Your task to perform on an android device: View the shopping cart on newegg. Search for "beats solo 3" on newegg, select the first entry, add it to the cart, then select checkout. Image 0: 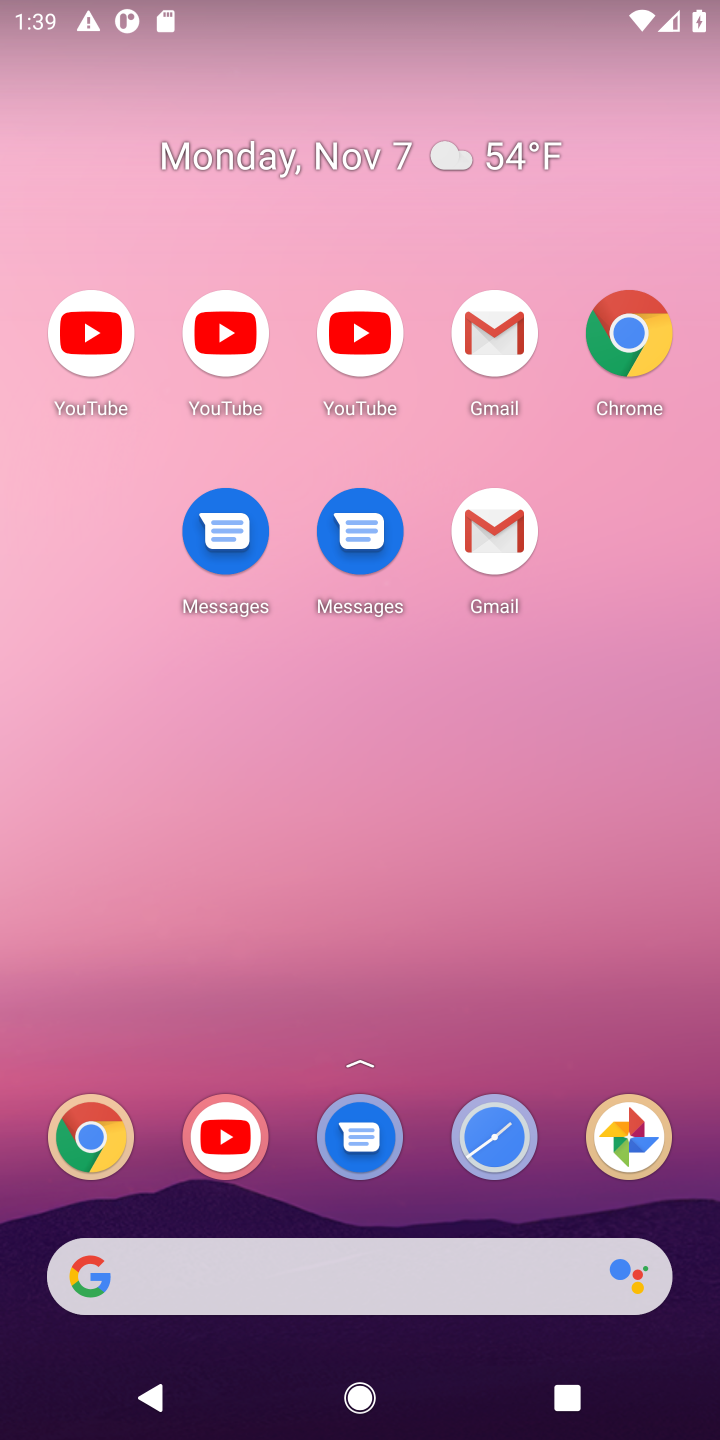
Step 0: drag from (419, 1199) to (425, 249)
Your task to perform on an android device: View the shopping cart on newegg. Search for "beats solo 3" on newegg, select the first entry, add it to the cart, then select checkout. Image 1: 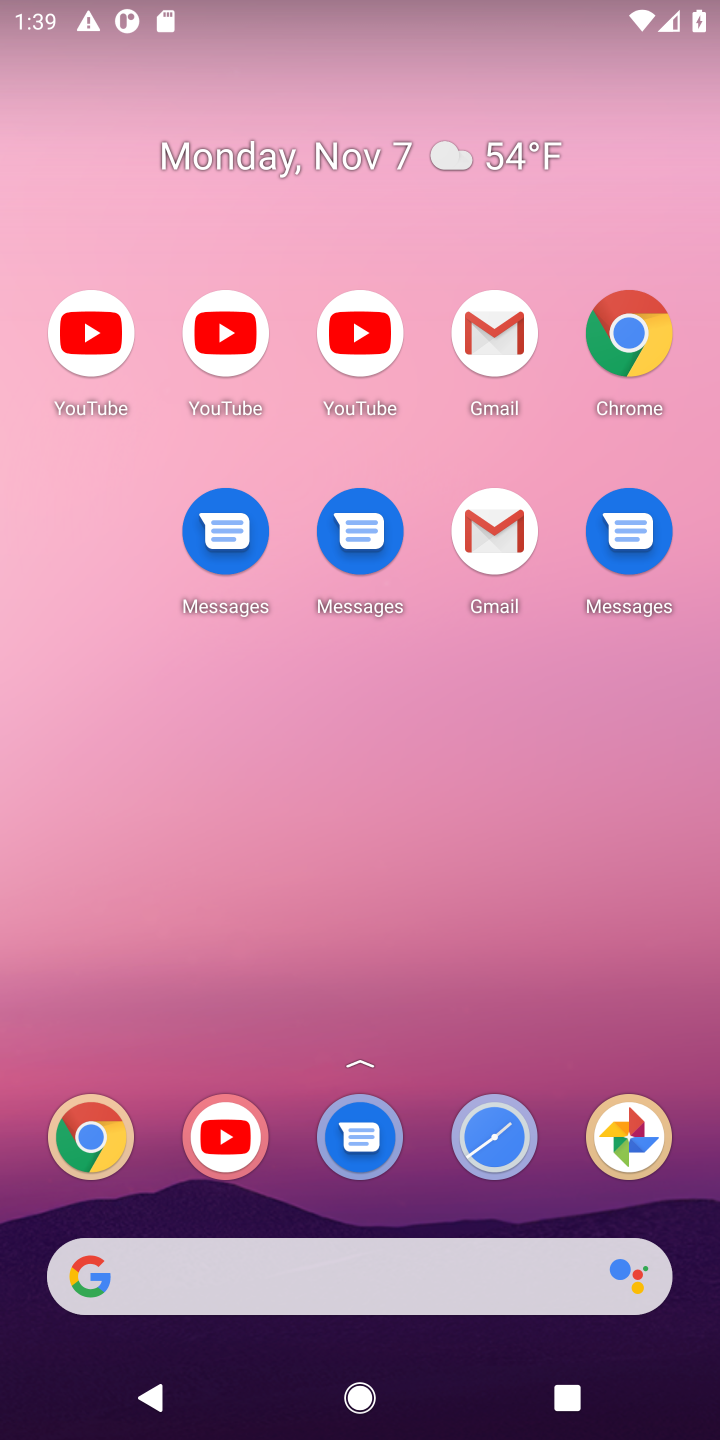
Step 1: drag from (417, 1215) to (312, 228)
Your task to perform on an android device: View the shopping cart on newegg. Search for "beats solo 3" on newegg, select the first entry, add it to the cart, then select checkout. Image 2: 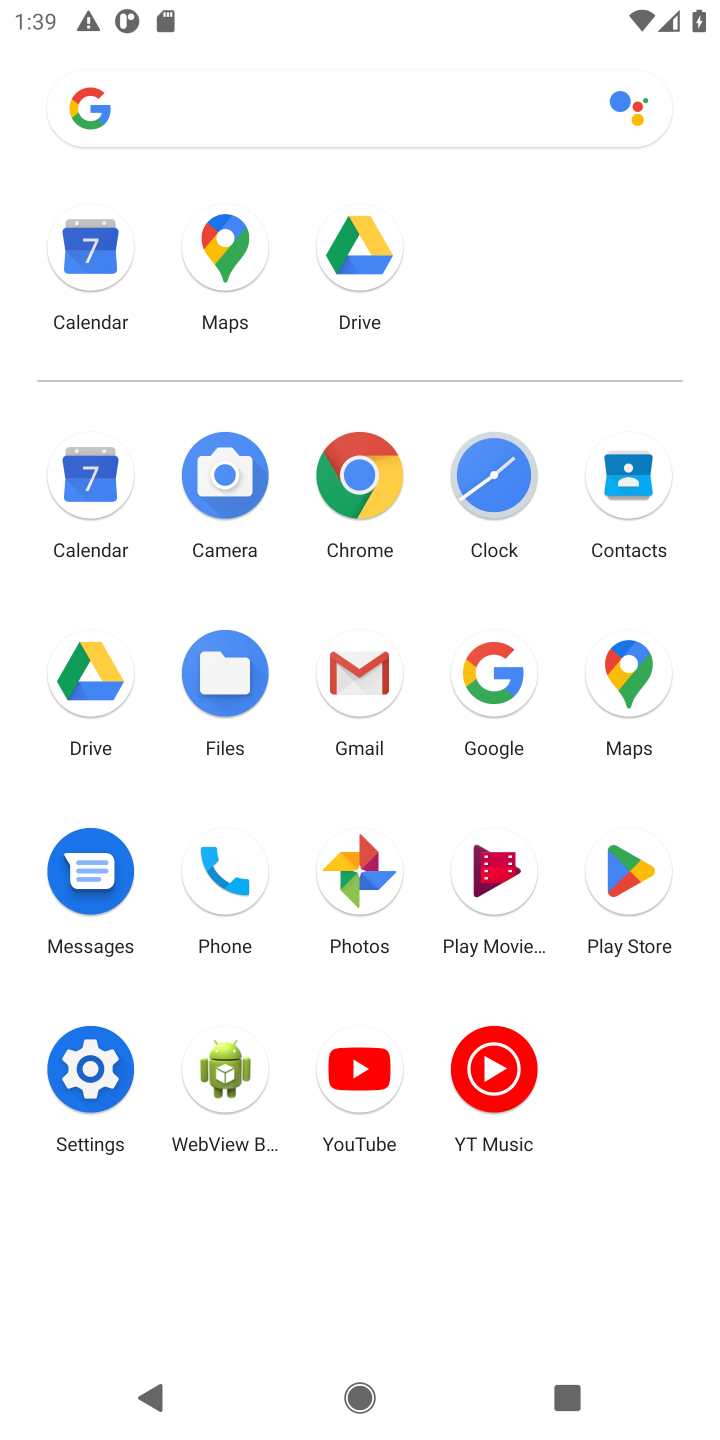
Step 2: click (360, 472)
Your task to perform on an android device: View the shopping cart on newegg. Search for "beats solo 3" on newegg, select the first entry, add it to the cart, then select checkout. Image 3: 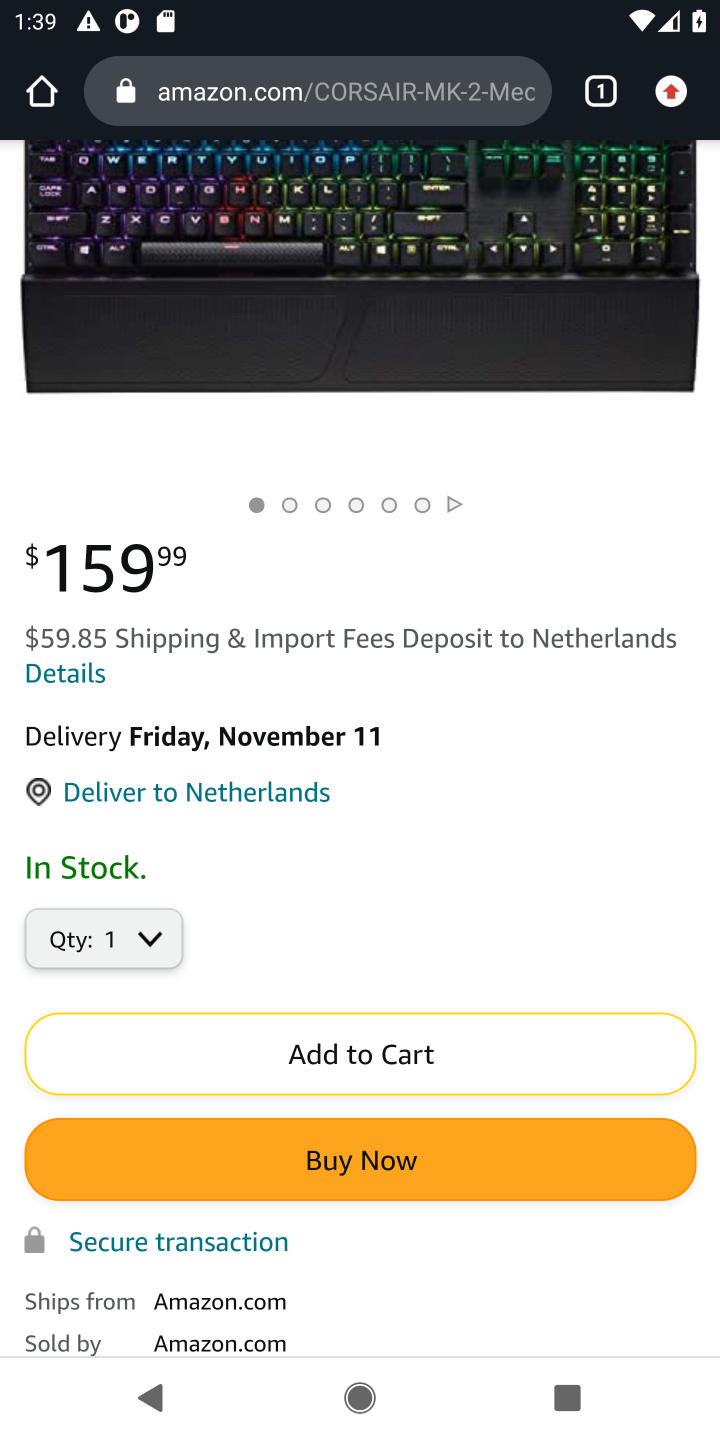
Step 3: click (353, 101)
Your task to perform on an android device: View the shopping cart on newegg. Search for "beats solo 3" on newegg, select the first entry, add it to the cart, then select checkout. Image 4: 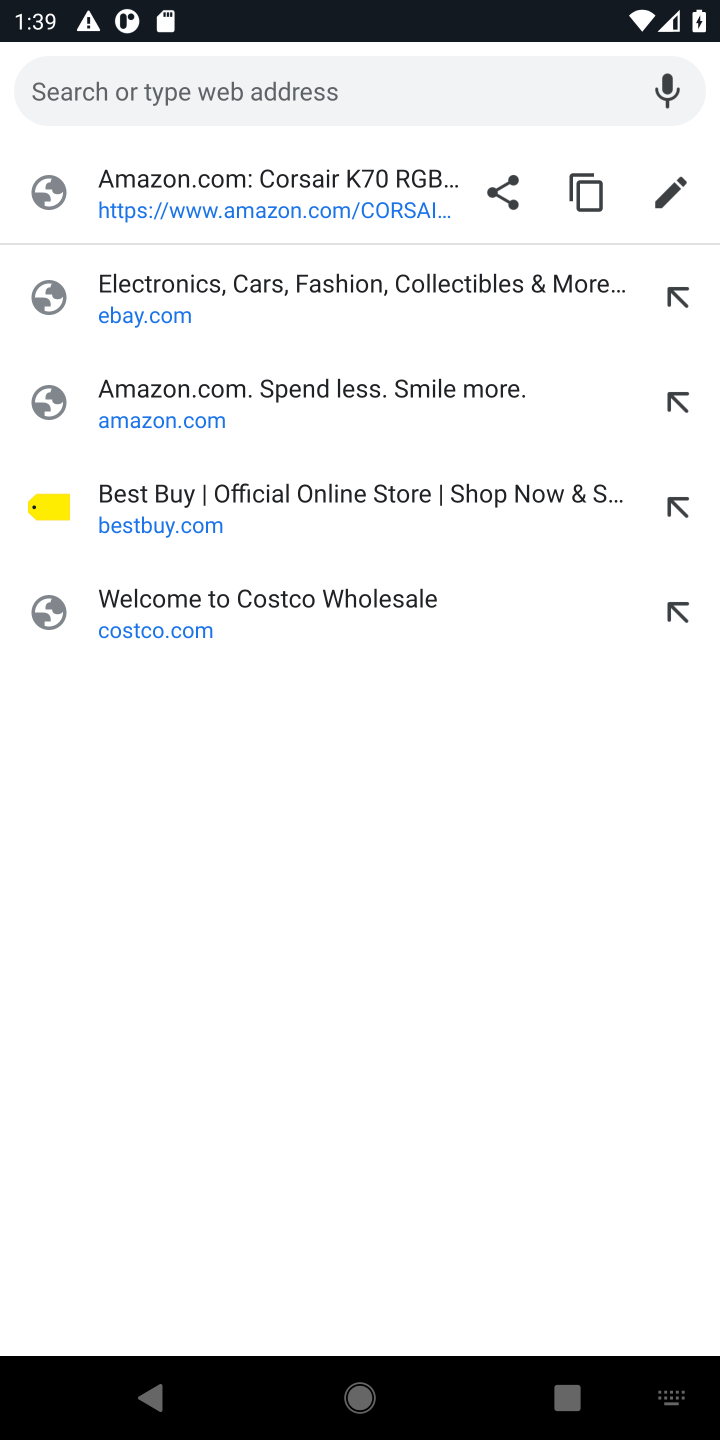
Step 4: type "newegg.com"
Your task to perform on an android device: View the shopping cart on newegg. Search for "beats solo 3" on newegg, select the first entry, add it to the cart, then select checkout. Image 5: 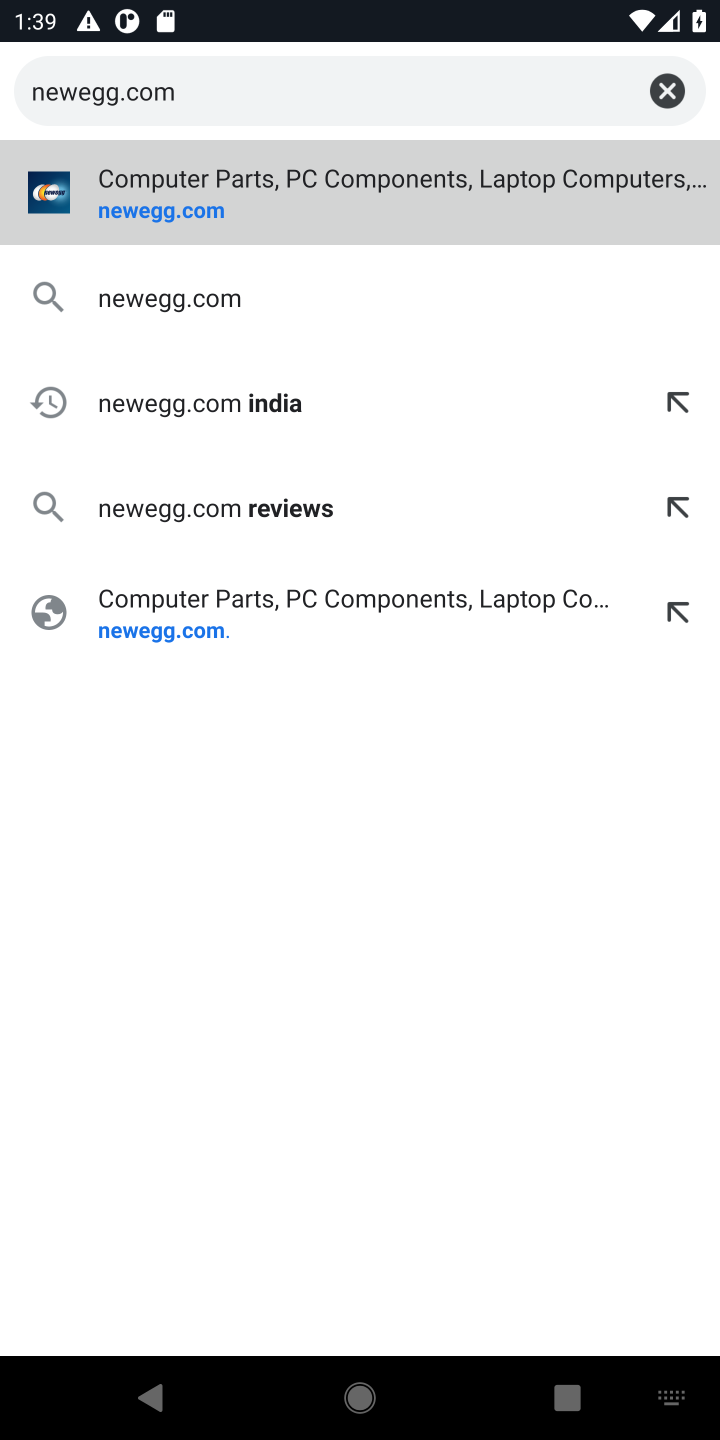
Step 5: press enter
Your task to perform on an android device: View the shopping cart on newegg. Search for "beats solo 3" on newegg, select the first entry, add it to the cart, then select checkout. Image 6: 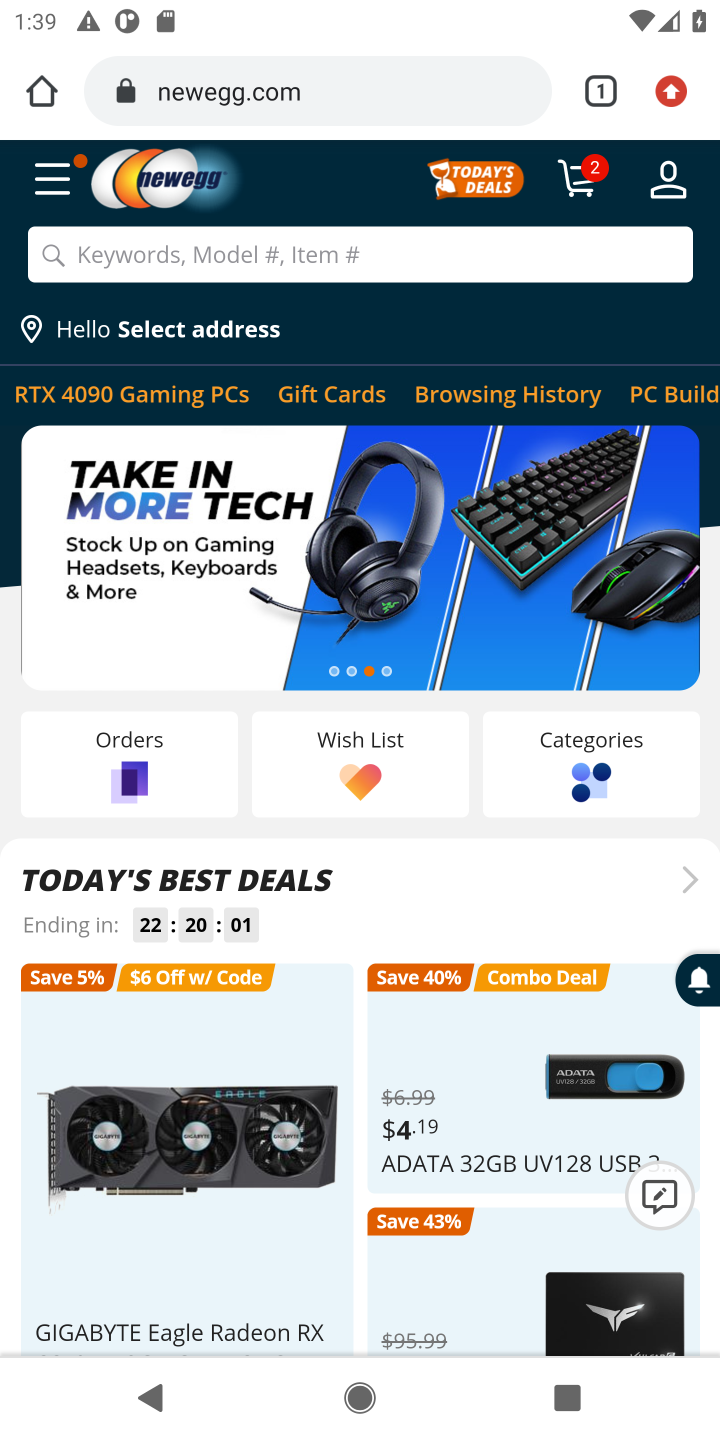
Step 6: click (585, 186)
Your task to perform on an android device: View the shopping cart on newegg. Search for "beats solo 3" on newegg, select the first entry, add it to the cart, then select checkout. Image 7: 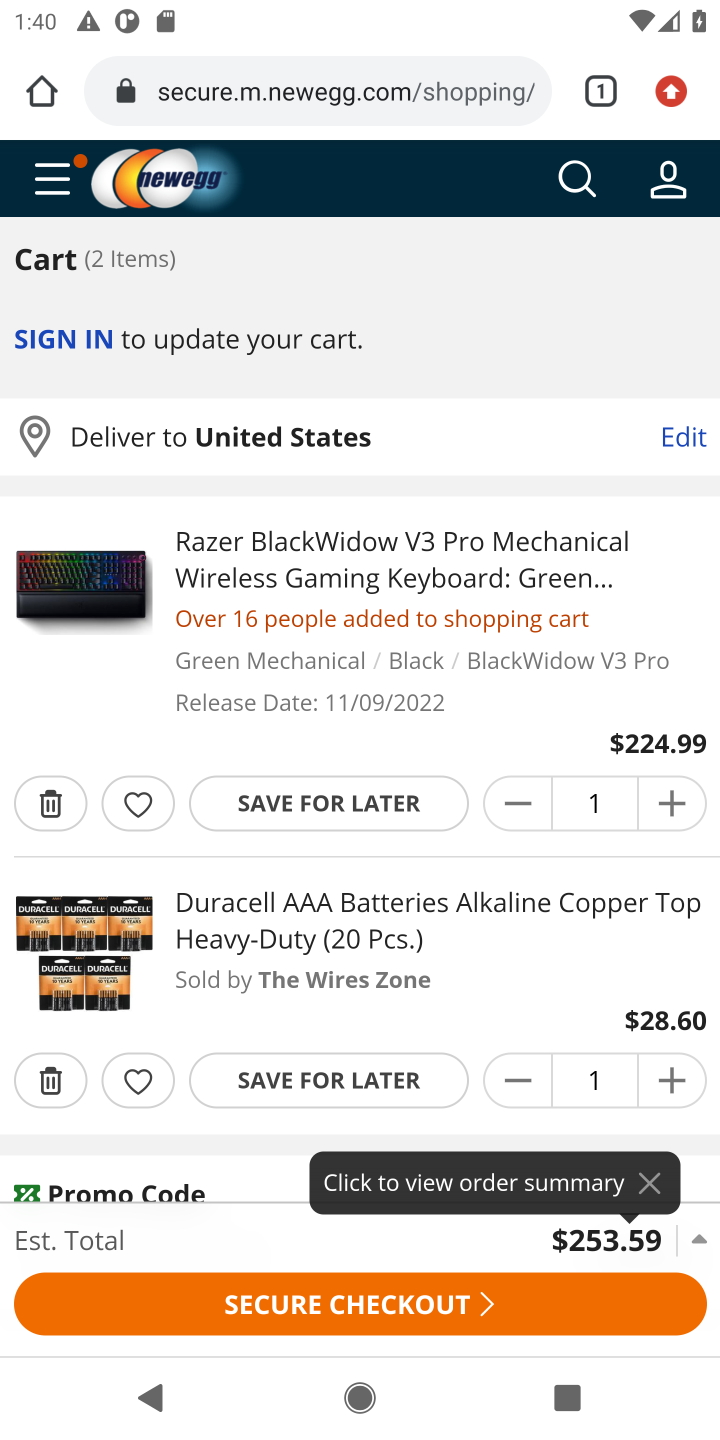
Step 7: click (557, 166)
Your task to perform on an android device: View the shopping cart on newegg. Search for "beats solo 3" on newegg, select the first entry, add it to the cart, then select checkout. Image 8: 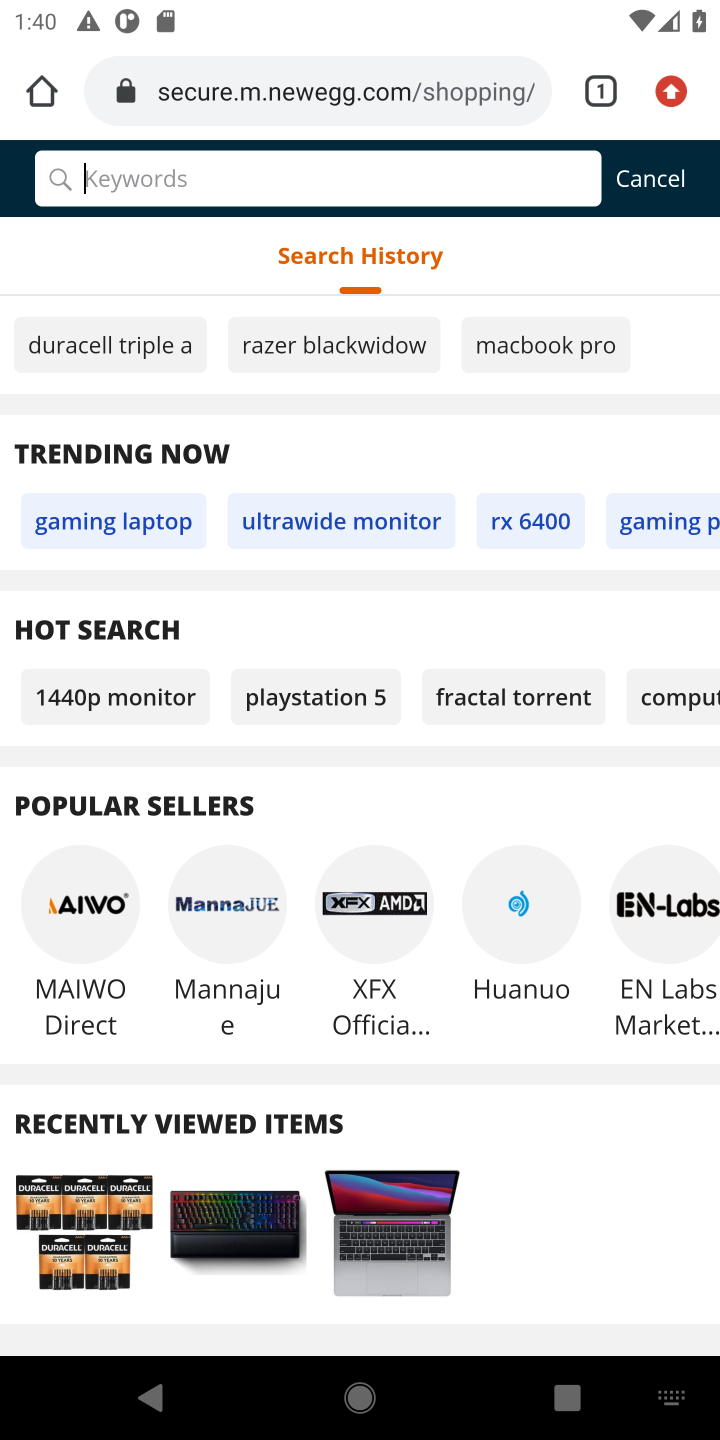
Step 8: type "beats solo 3"
Your task to perform on an android device: View the shopping cart on newegg. Search for "beats solo 3" on newegg, select the first entry, add it to the cart, then select checkout. Image 9: 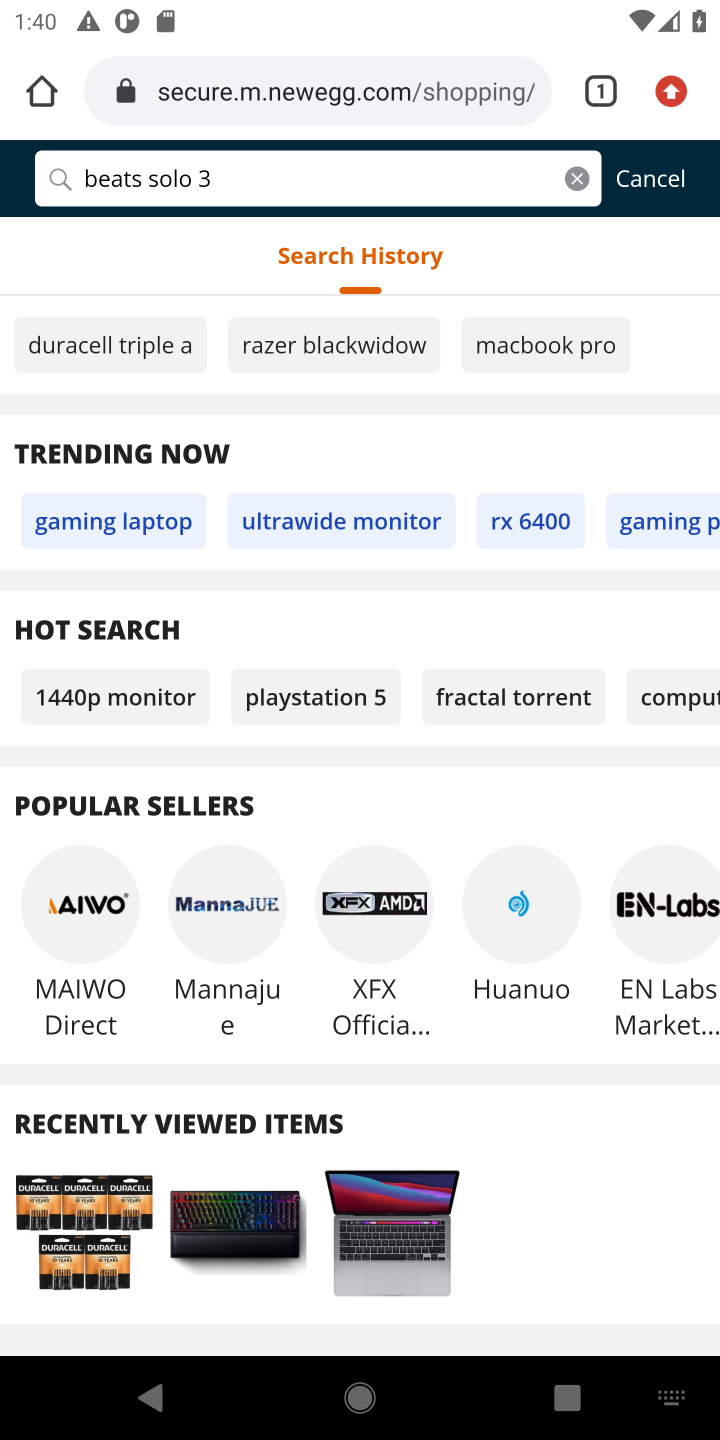
Step 9: press enter
Your task to perform on an android device: View the shopping cart on newegg. Search for "beats solo 3" on newegg, select the first entry, add it to the cart, then select checkout. Image 10: 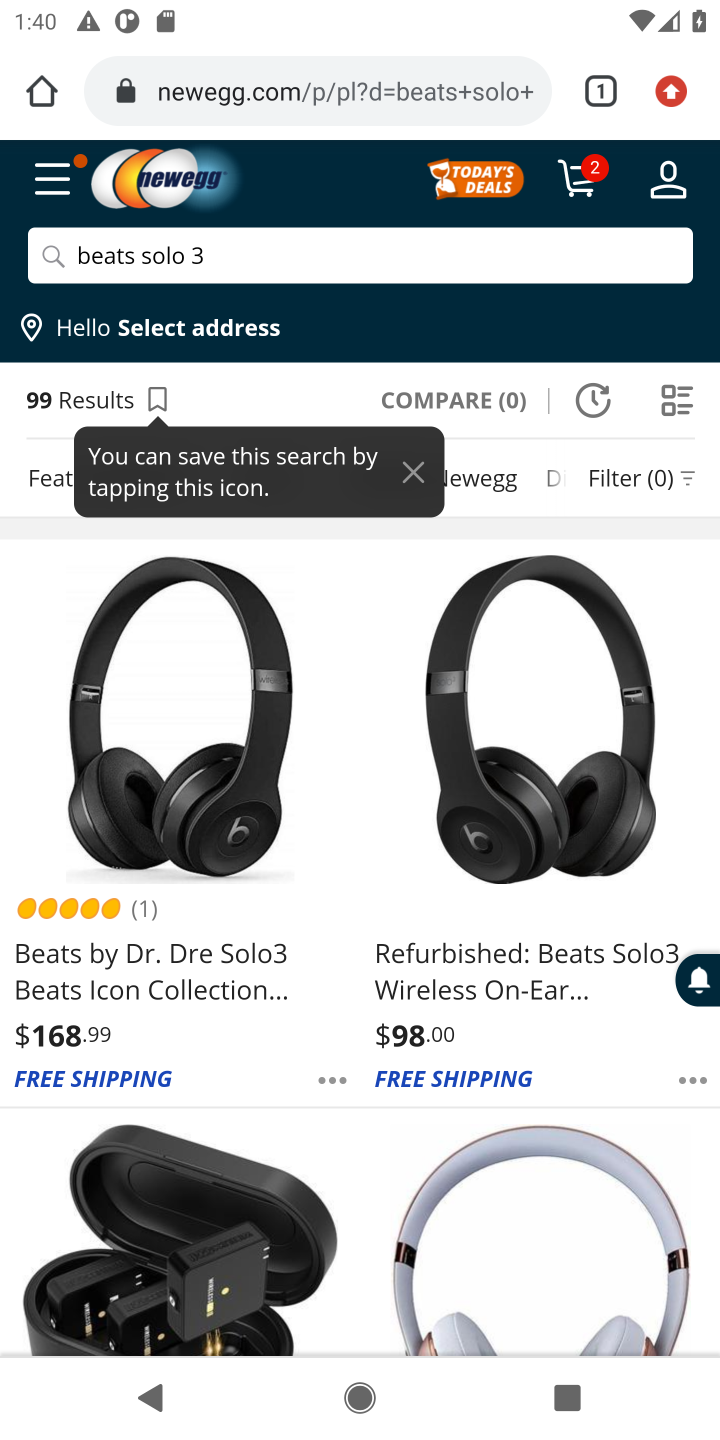
Step 10: click (229, 782)
Your task to perform on an android device: View the shopping cart on newegg. Search for "beats solo 3" on newegg, select the first entry, add it to the cart, then select checkout. Image 11: 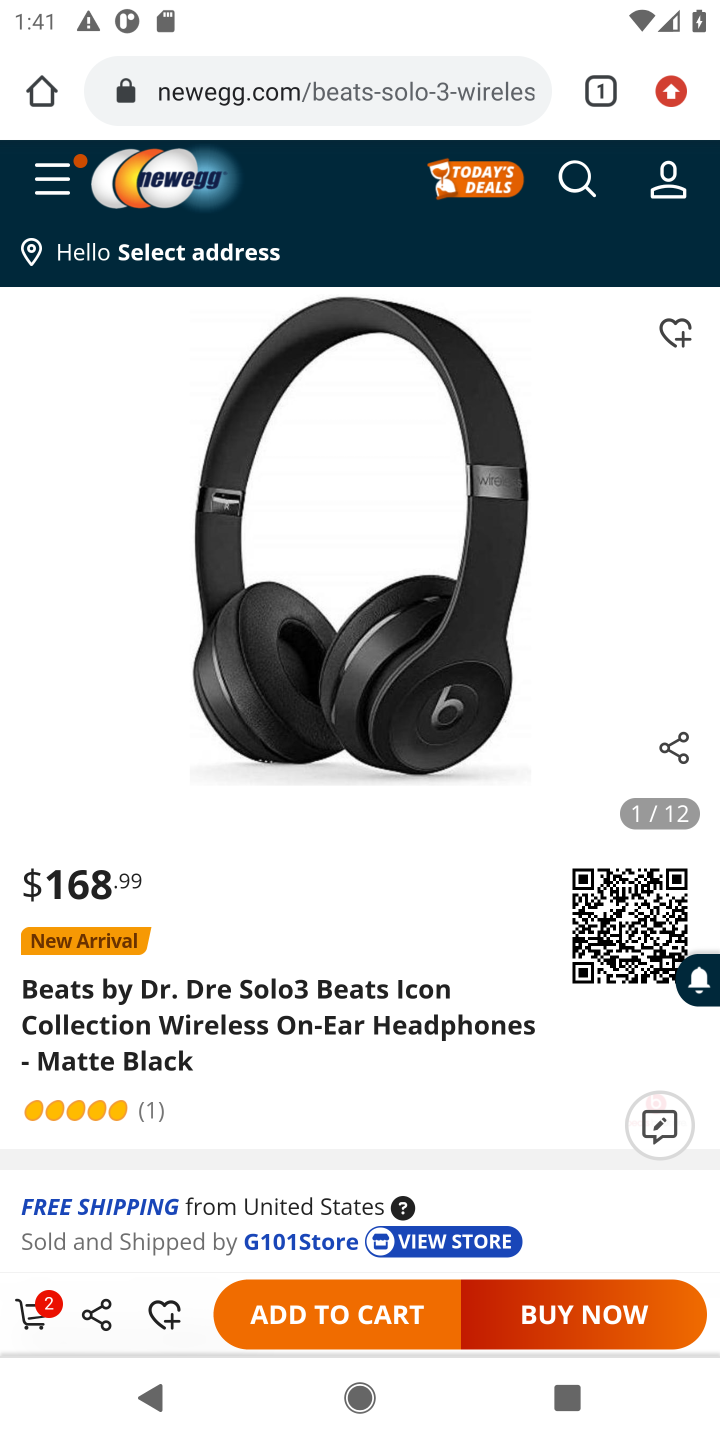
Step 11: click (357, 1309)
Your task to perform on an android device: View the shopping cart on newegg. Search for "beats solo 3" on newegg, select the first entry, add it to the cart, then select checkout. Image 12: 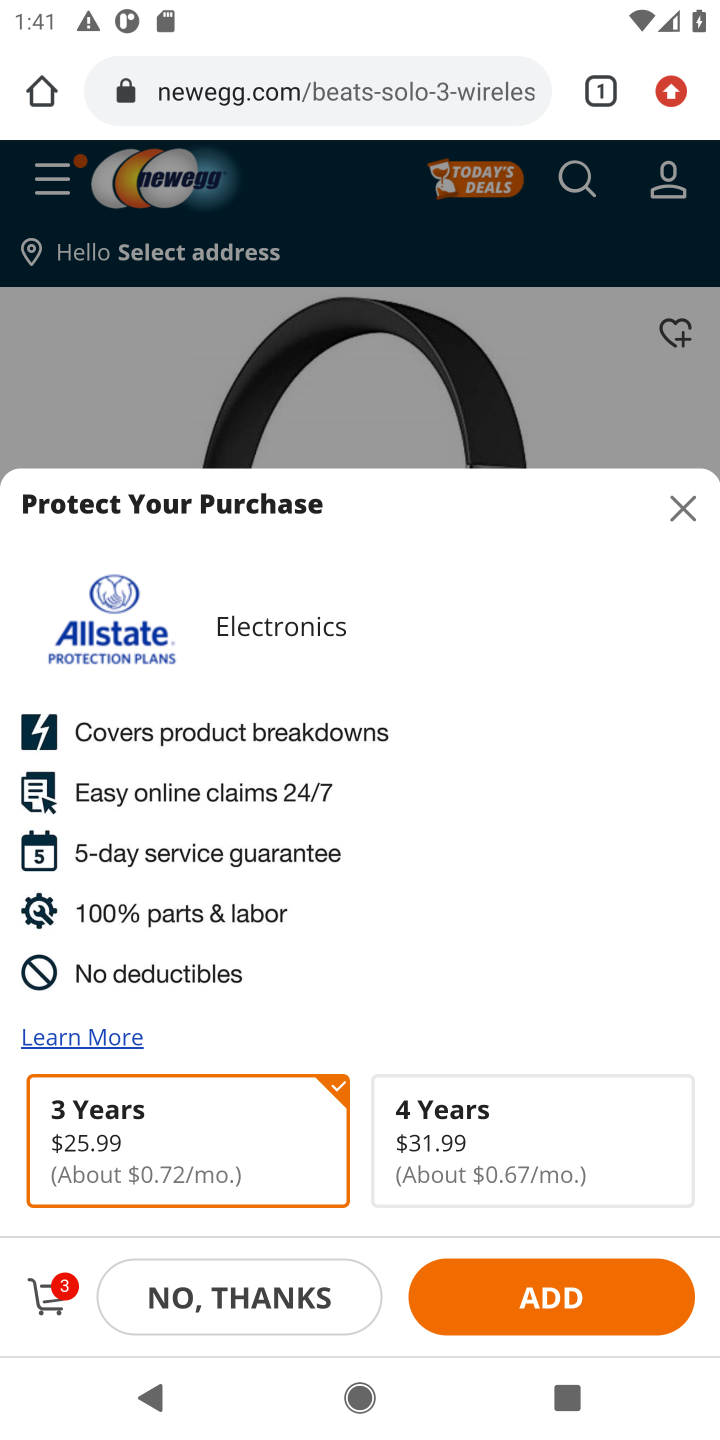
Step 12: click (59, 1294)
Your task to perform on an android device: View the shopping cart on newegg. Search for "beats solo 3" on newegg, select the first entry, add it to the cart, then select checkout. Image 13: 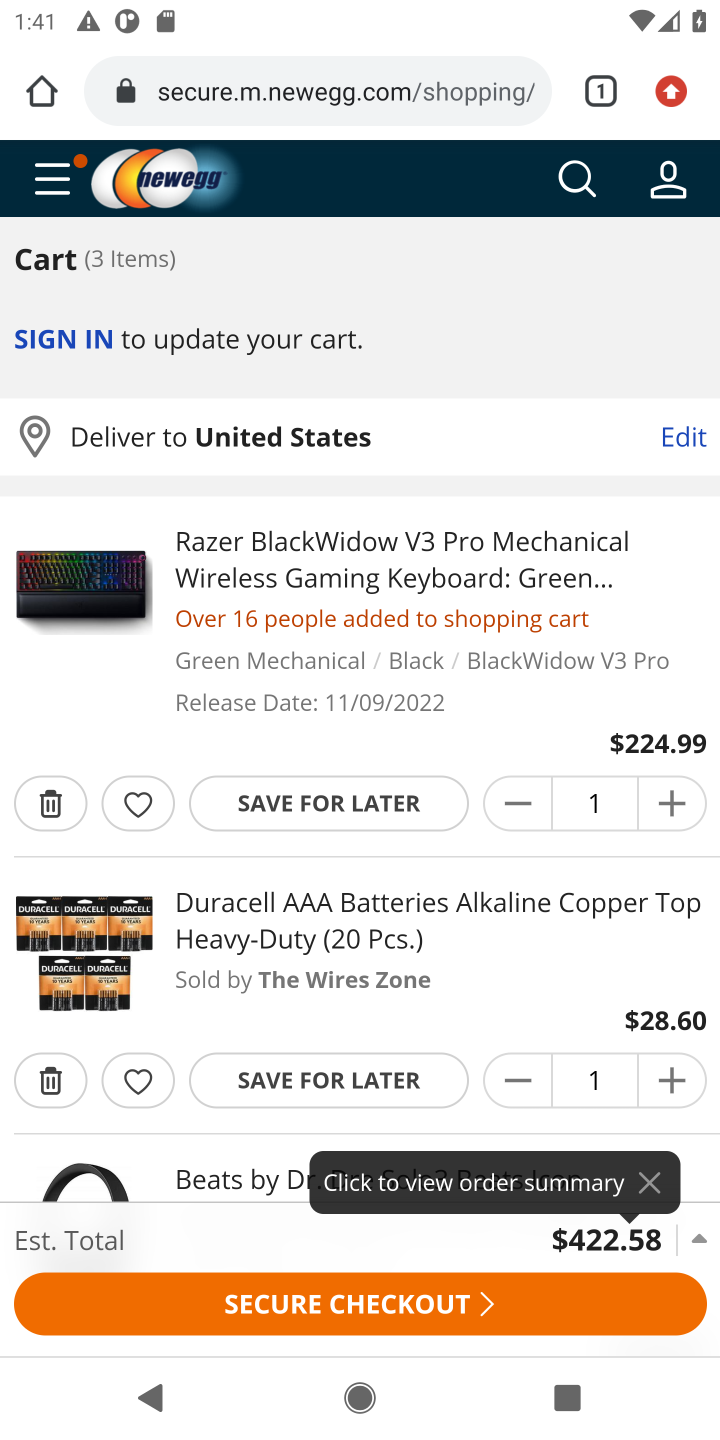
Step 13: click (391, 1299)
Your task to perform on an android device: View the shopping cart on newegg. Search for "beats solo 3" on newegg, select the first entry, add it to the cart, then select checkout. Image 14: 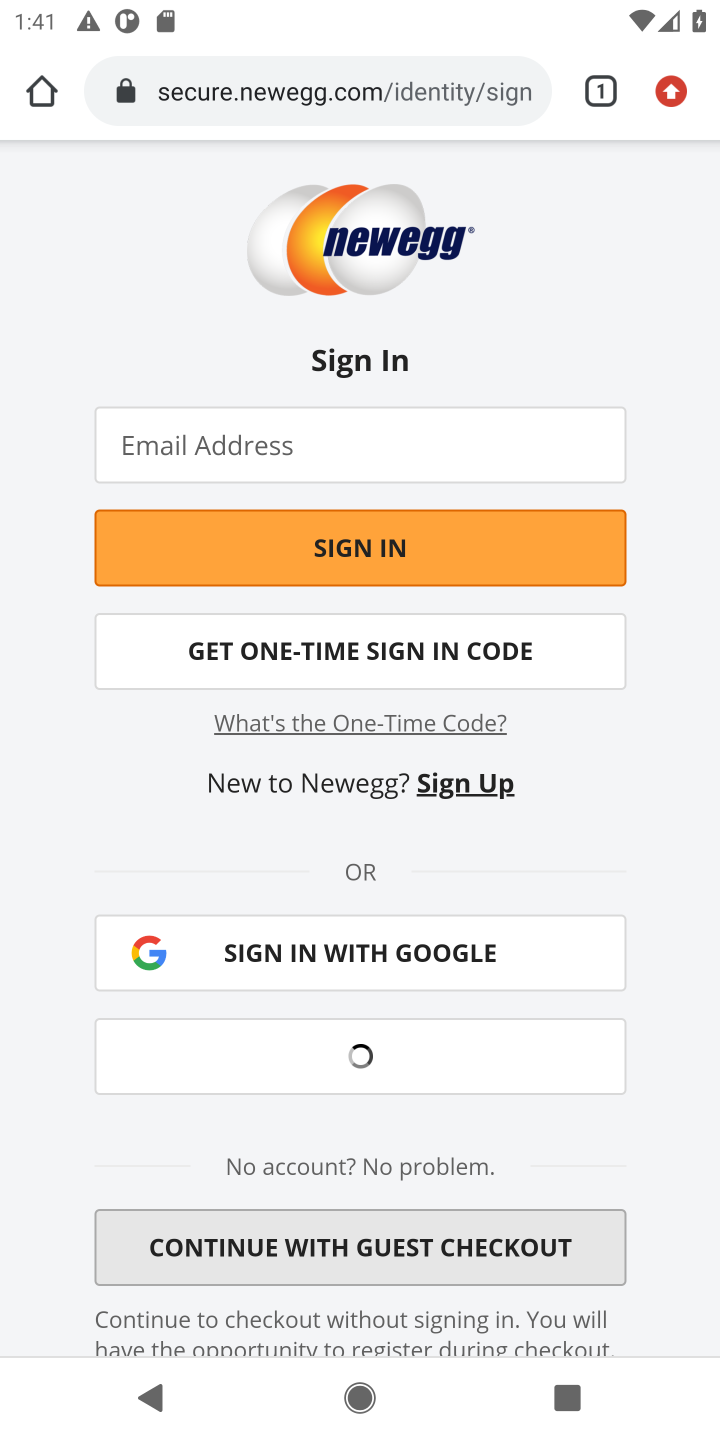
Step 14: task complete